Your task to perform on an android device: toggle javascript in the chrome app Image 0: 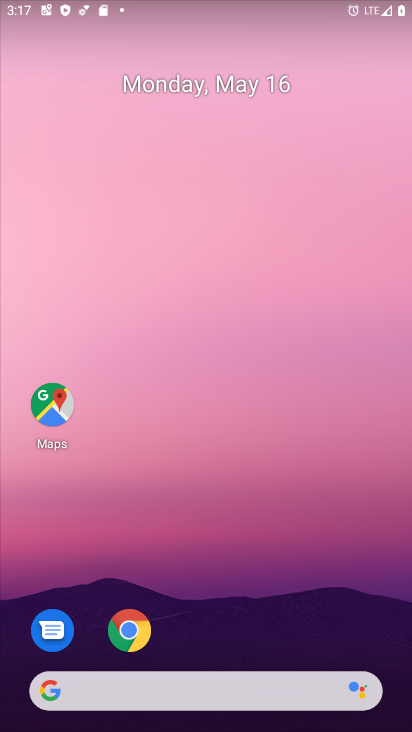
Step 0: click (54, 400)
Your task to perform on an android device: toggle javascript in the chrome app Image 1: 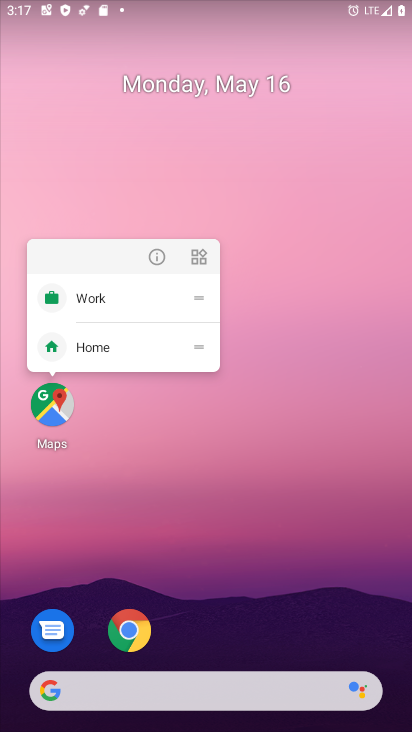
Step 1: click (135, 628)
Your task to perform on an android device: toggle javascript in the chrome app Image 2: 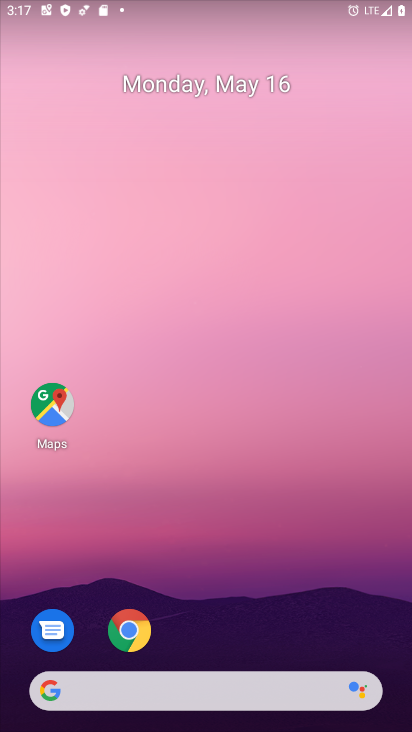
Step 2: click (132, 627)
Your task to perform on an android device: toggle javascript in the chrome app Image 3: 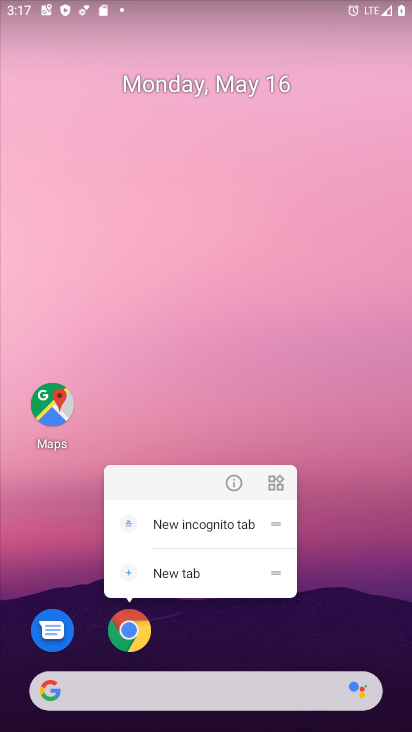
Step 3: click (132, 626)
Your task to perform on an android device: toggle javascript in the chrome app Image 4: 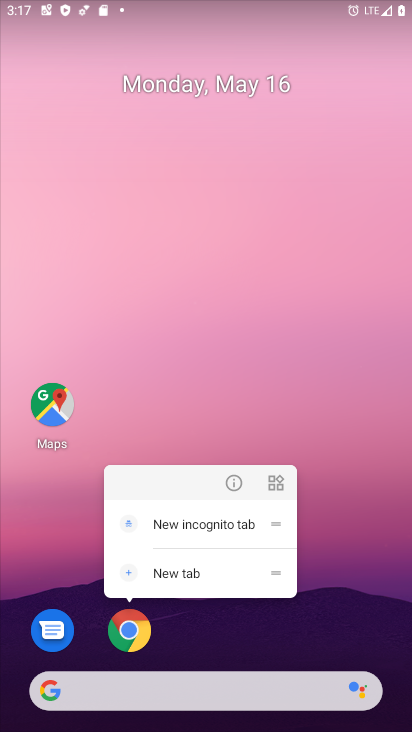
Step 4: click (132, 626)
Your task to perform on an android device: toggle javascript in the chrome app Image 5: 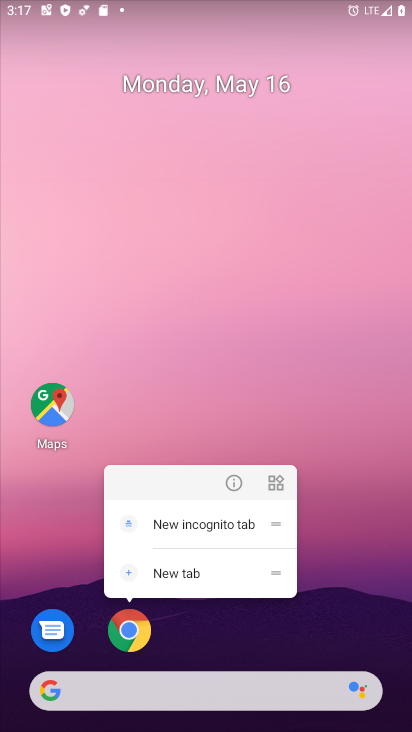
Step 5: click (132, 626)
Your task to perform on an android device: toggle javascript in the chrome app Image 6: 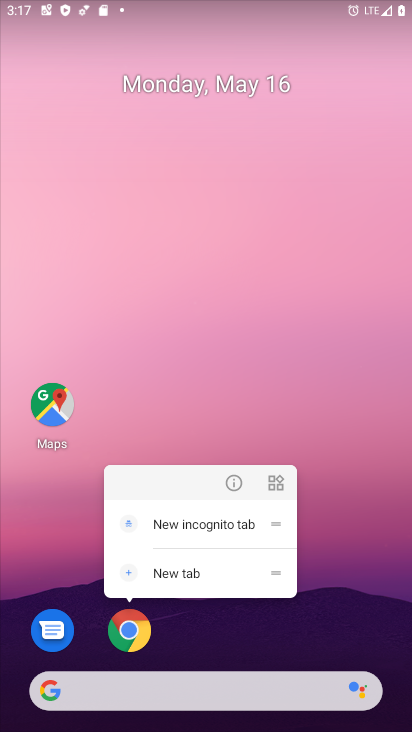
Step 6: click (132, 626)
Your task to perform on an android device: toggle javascript in the chrome app Image 7: 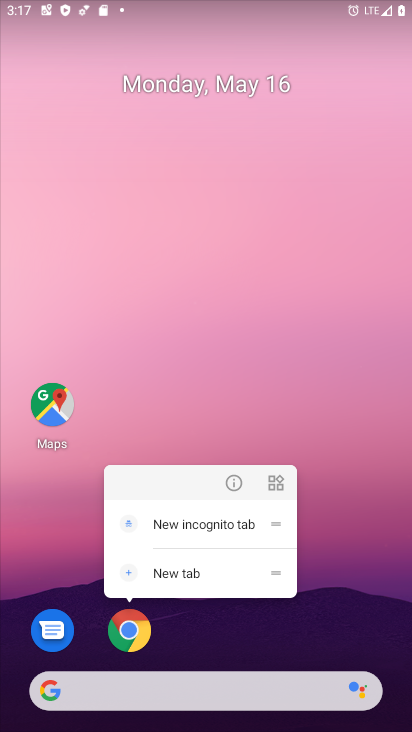
Step 7: click (213, 653)
Your task to perform on an android device: toggle javascript in the chrome app Image 8: 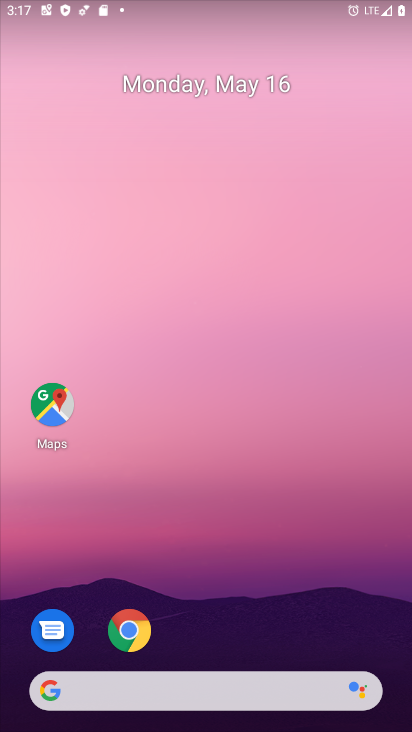
Step 8: drag from (260, 659) to (298, 165)
Your task to perform on an android device: toggle javascript in the chrome app Image 9: 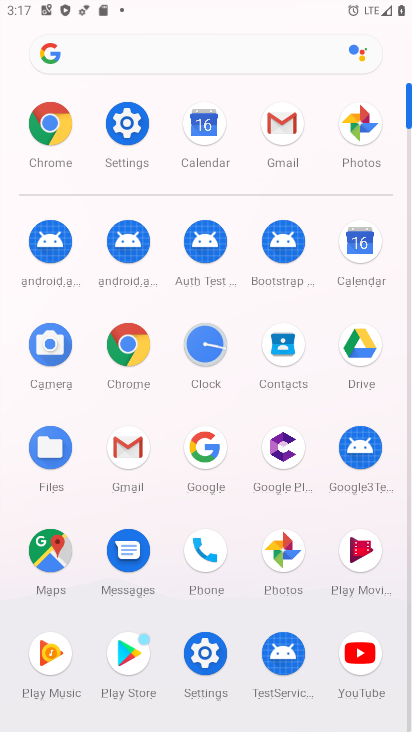
Step 9: click (130, 342)
Your task to perform on an android device: toggle javascript in the chrome app Image 10: 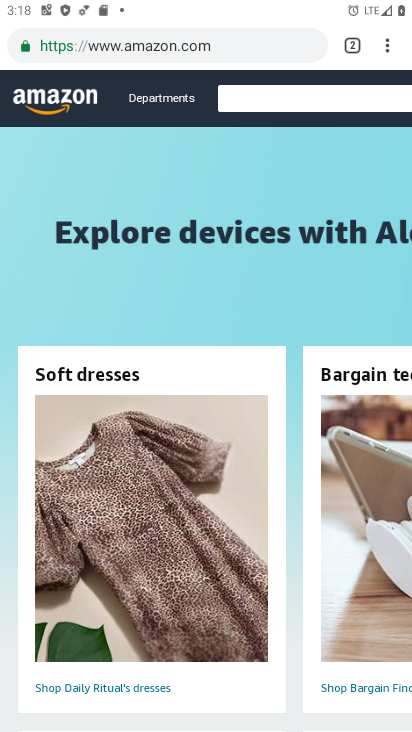
Step 10: click (390, 41)
Your task to perform on an android device: toggle javascript in the chrome app Image 11: 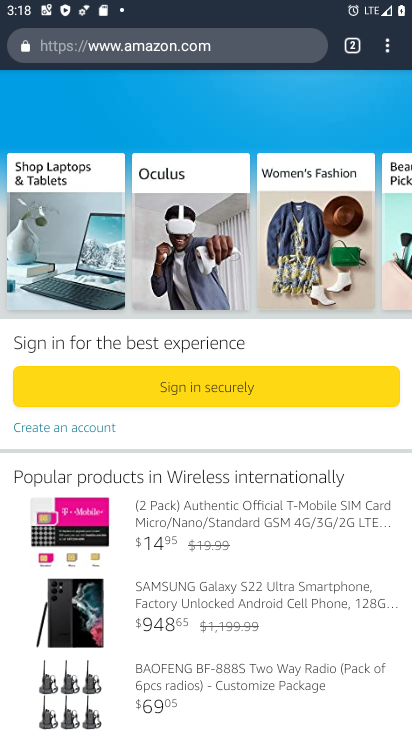
Step 11: click (381, 43)
Your task to perform on an android device: toggle javascript in the chrome app Image 12: 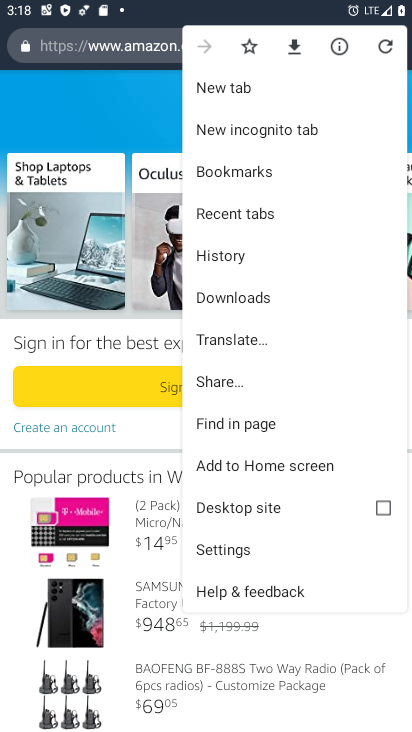
Step 12: click (267, 540)
Your task to perform on an android device: toggle javascript in the chrome app Image 13: 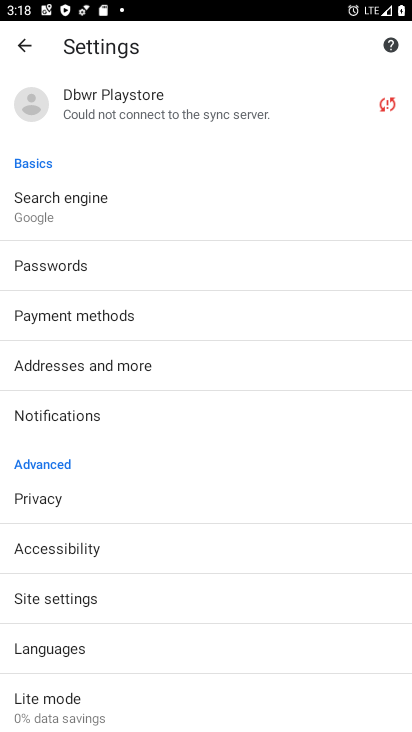
Step 13: click (112, 594)
Your task to perform on an android device: toggle javascript in the chrome app Image 14: 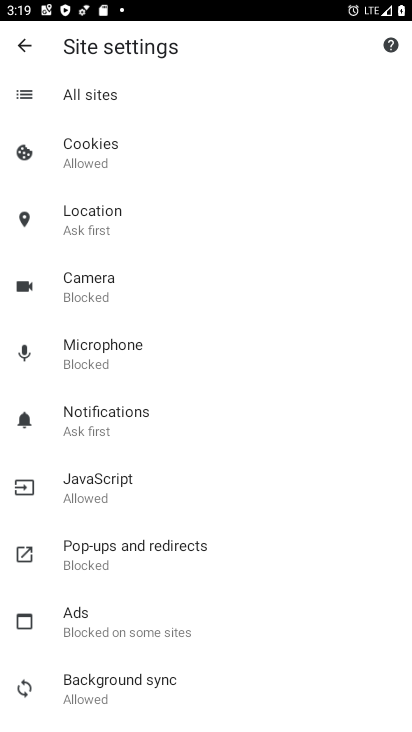
Step 14: click (130, 492)
Your task to perform on an android device: toggle javascript in the chrome app Image 15: 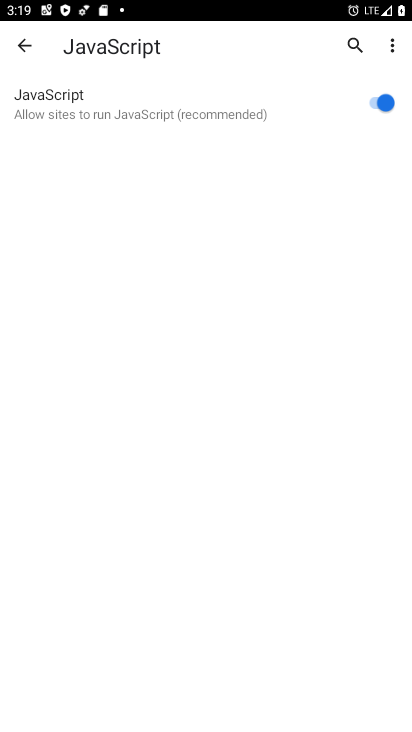
Step 15: click (379, 101)
Your task to perform on an android device: toggle javascript in the chrome app Image 16: 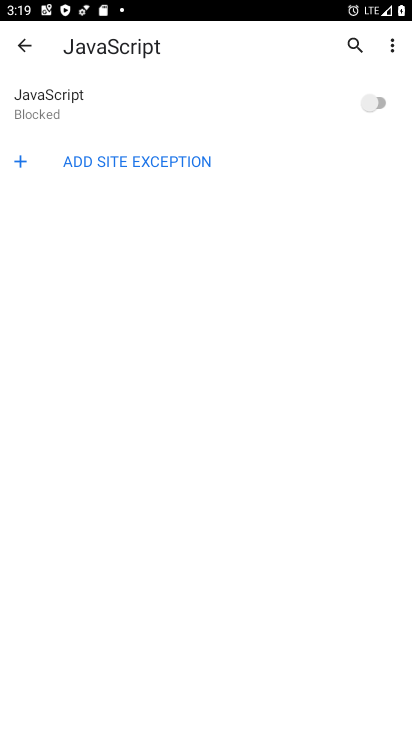
Step 16: task complete